Your task to perform on an android device: Open notification settings Image 0: 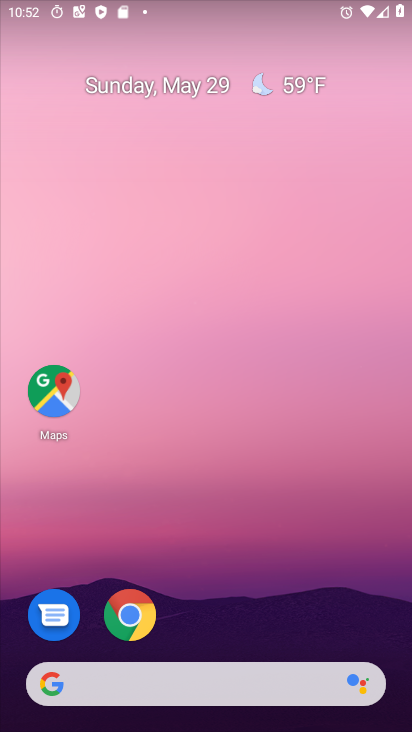
Step 0: drag from (242, 581) to (247, 32)
Your task to perform on an android device: Open notification settings Image 1: 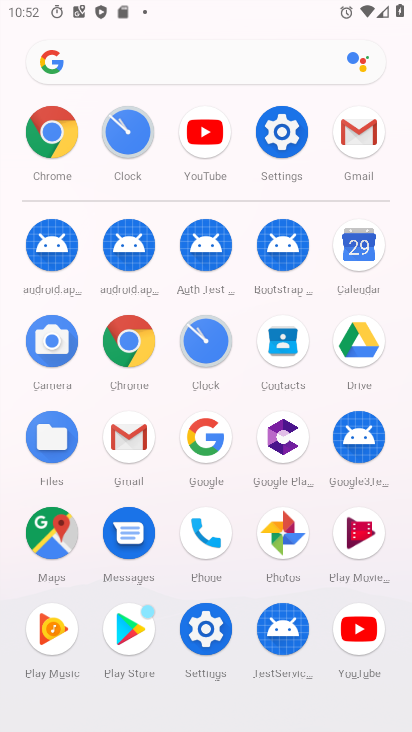
Step 1: click (198, 641)
Your task to perform on an android device: Open notification settings Image 2: 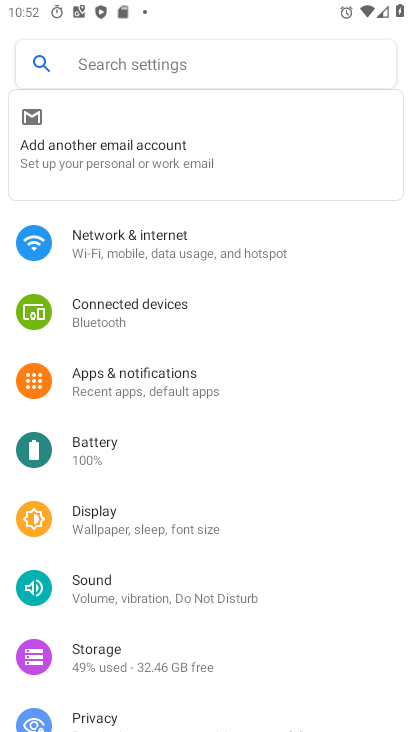
Step 2: click (147, 380)
Your task to perform on an android device: Open notification settings Image 3: 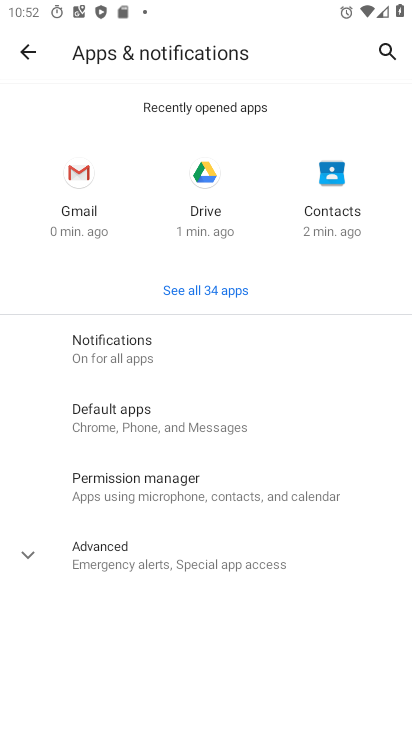
Step 3: click (134, 355)
Your task to perform on an android device: Open notification settings Image 4: 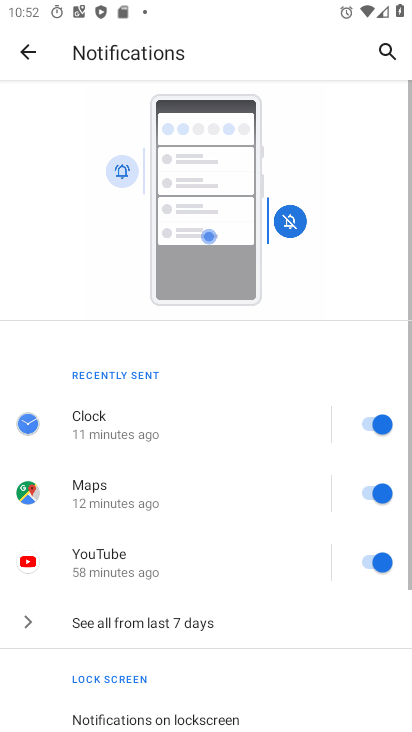
Step 4: task complete